Your task to perform on an android device: Search for the best selling vase on Crate & Barrel Image 0: 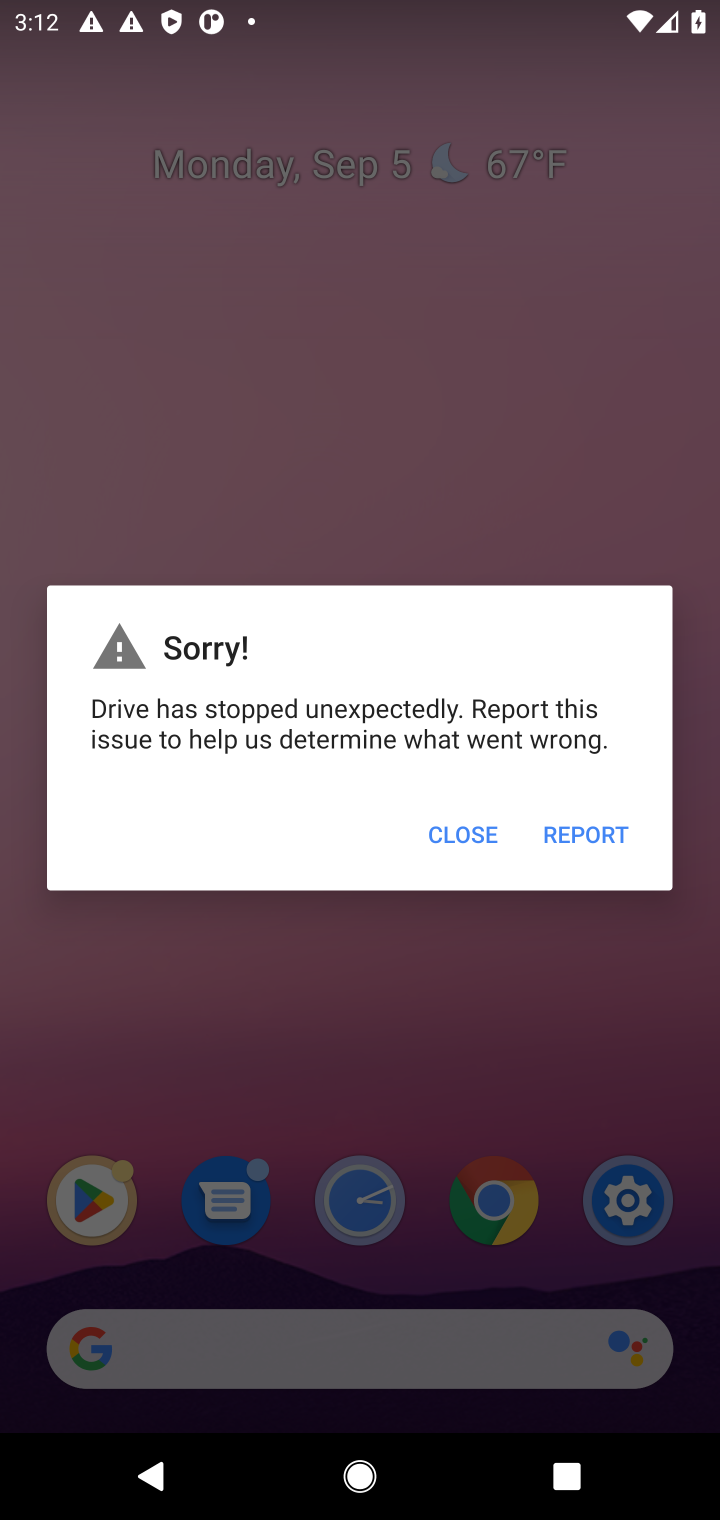
Step 0: click (485, 951)
Your task to perform on an android device: Search for the best selling vase on Crate & Barrel Image 1: 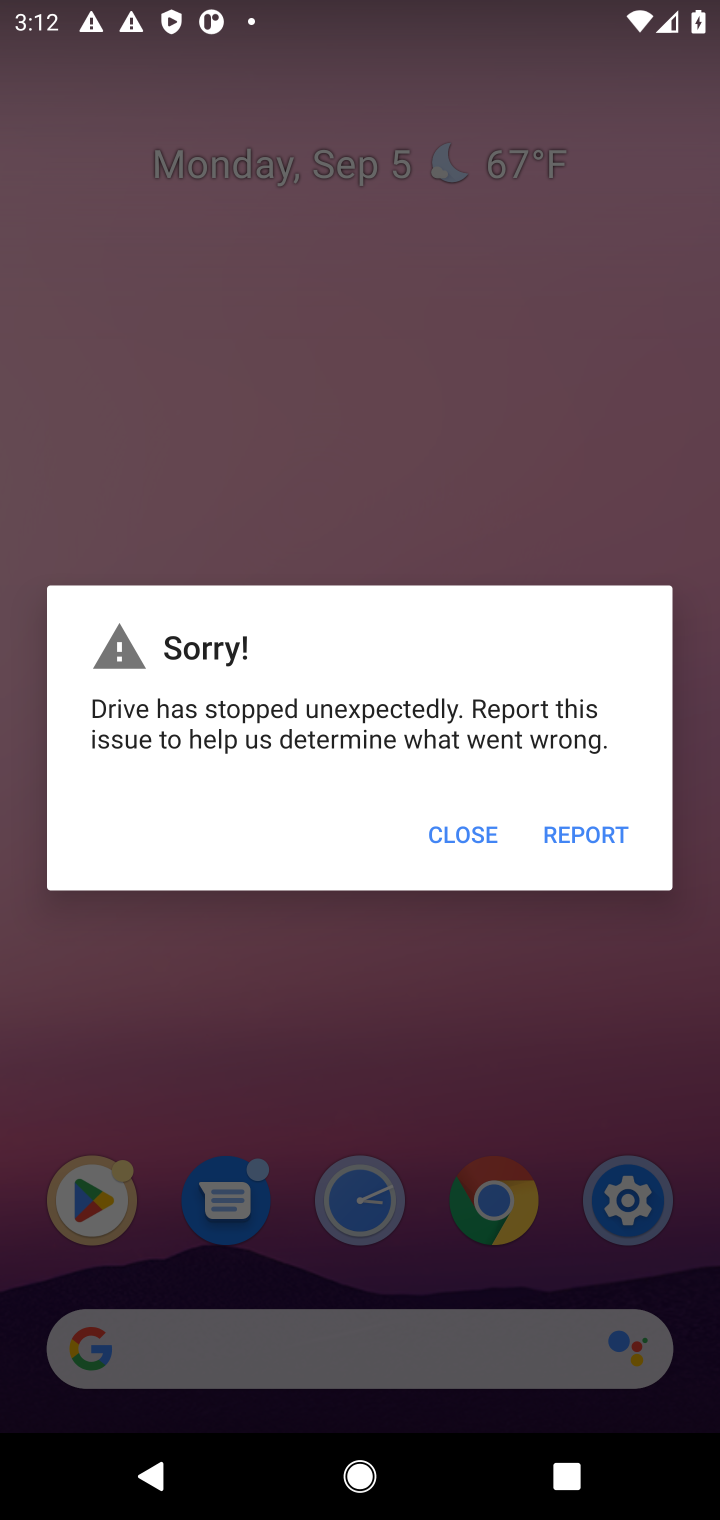
Step 1: press home button
Your task to perform on an android device: Search for the best selling vase on Crate & Barrel Image 2: 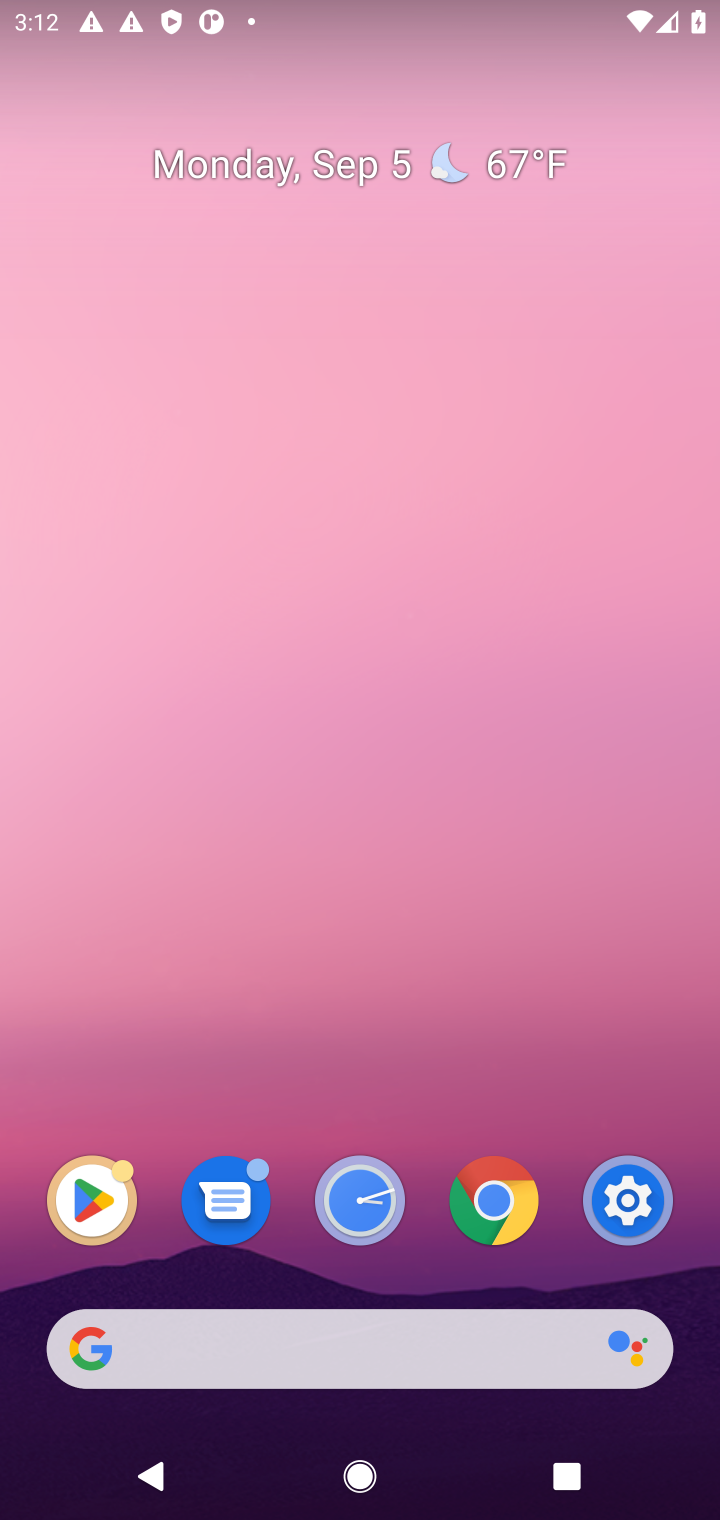
Step 2: click (371, 1341)
Your task to perform on an android device: Search for the best selling vase on Crate & Barrel Image 3: 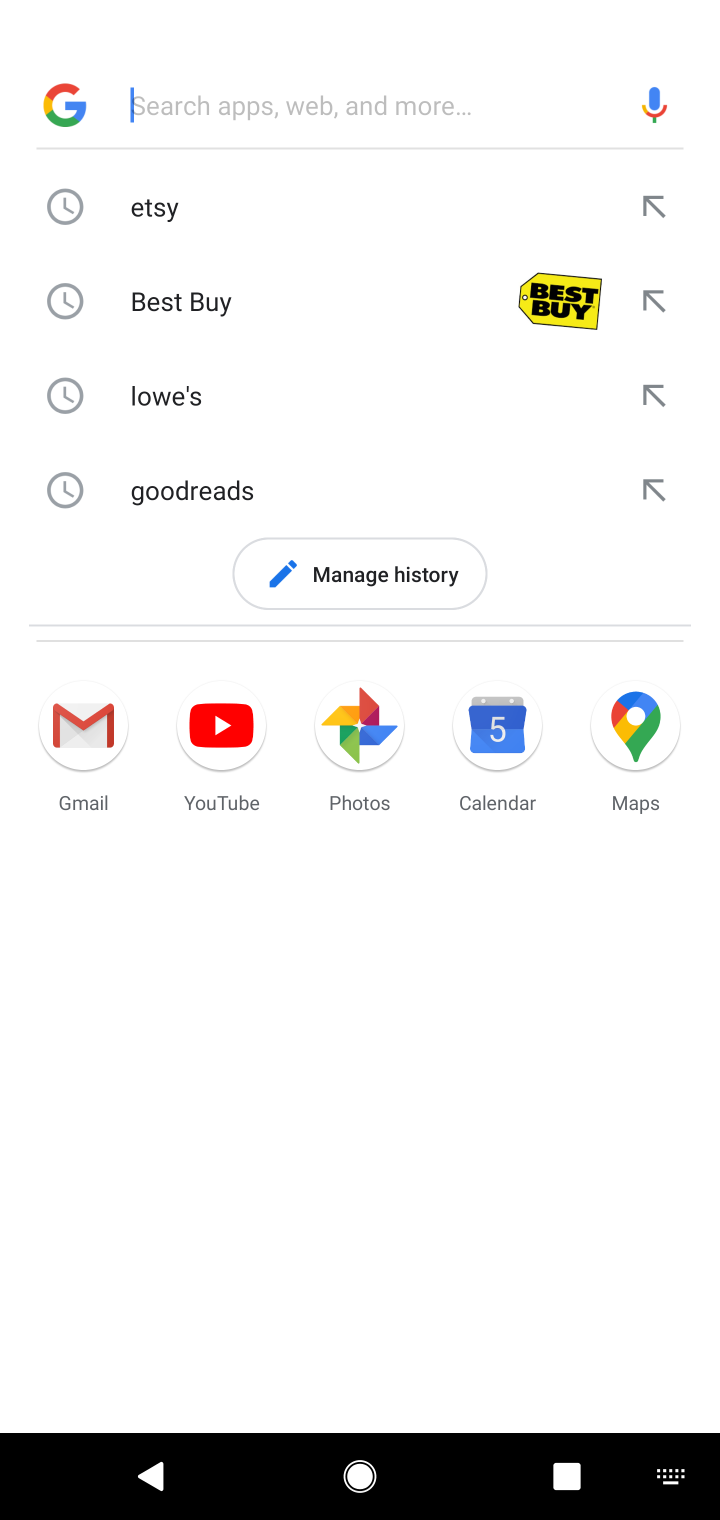
Step 3: type "crate & barrel"
Your task to perform on an android device: Search for the best selling vase on Crate & Barrel Image 4: 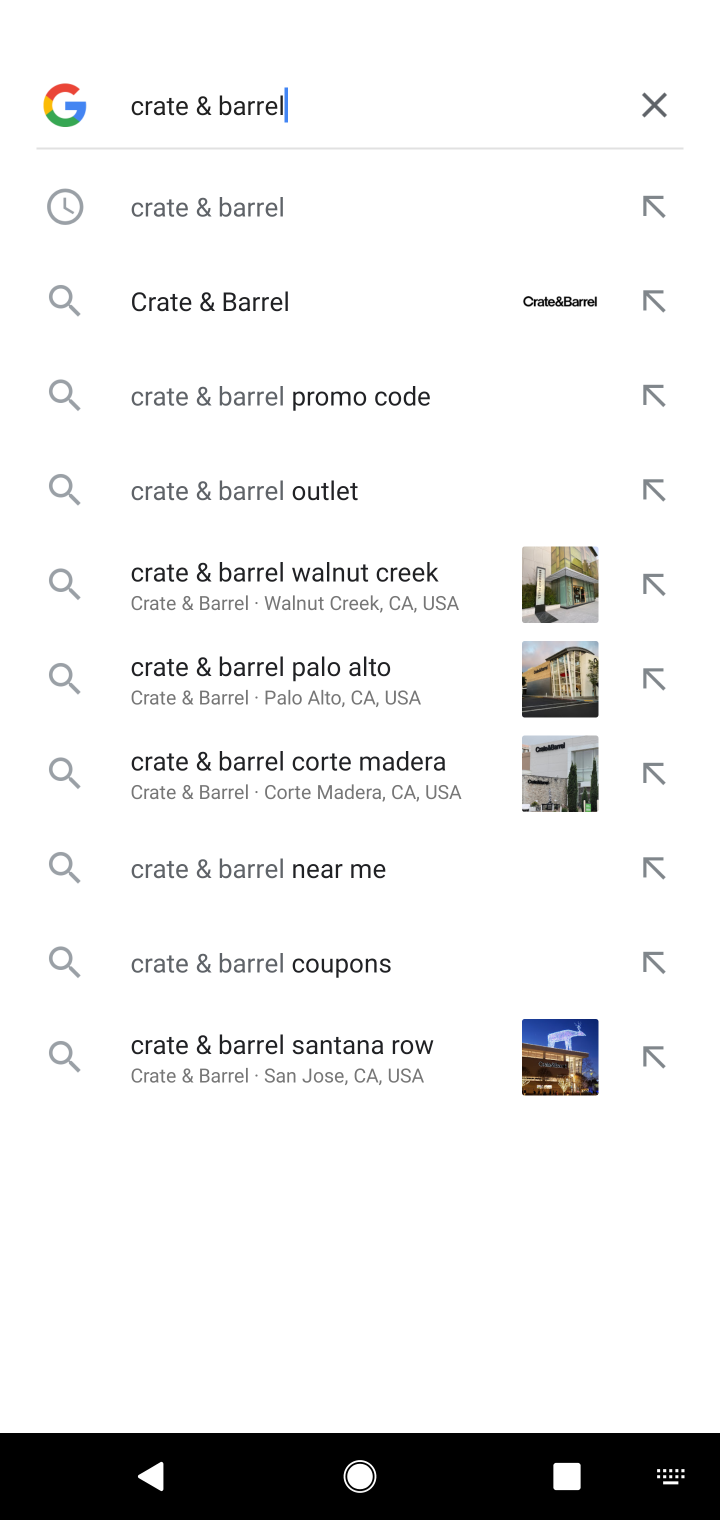
Step 4: click (228, 198)
Your task to perform on an android device: Search for the best selling vase on Crate & Barrel Image 5: 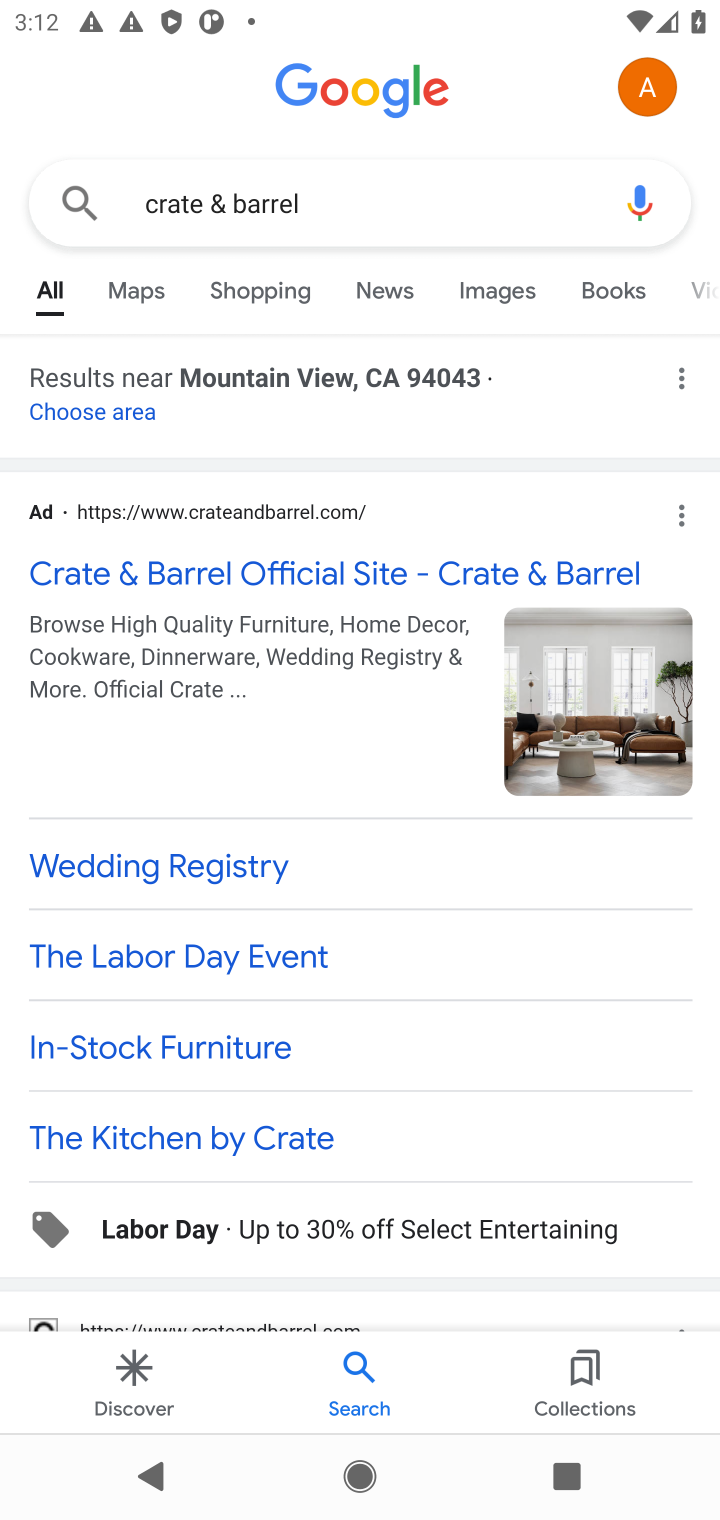
Step 5: click (232, 573)
Your task to perform on an android device: Search for the best selling vase on Crate & Barrel Image 6: 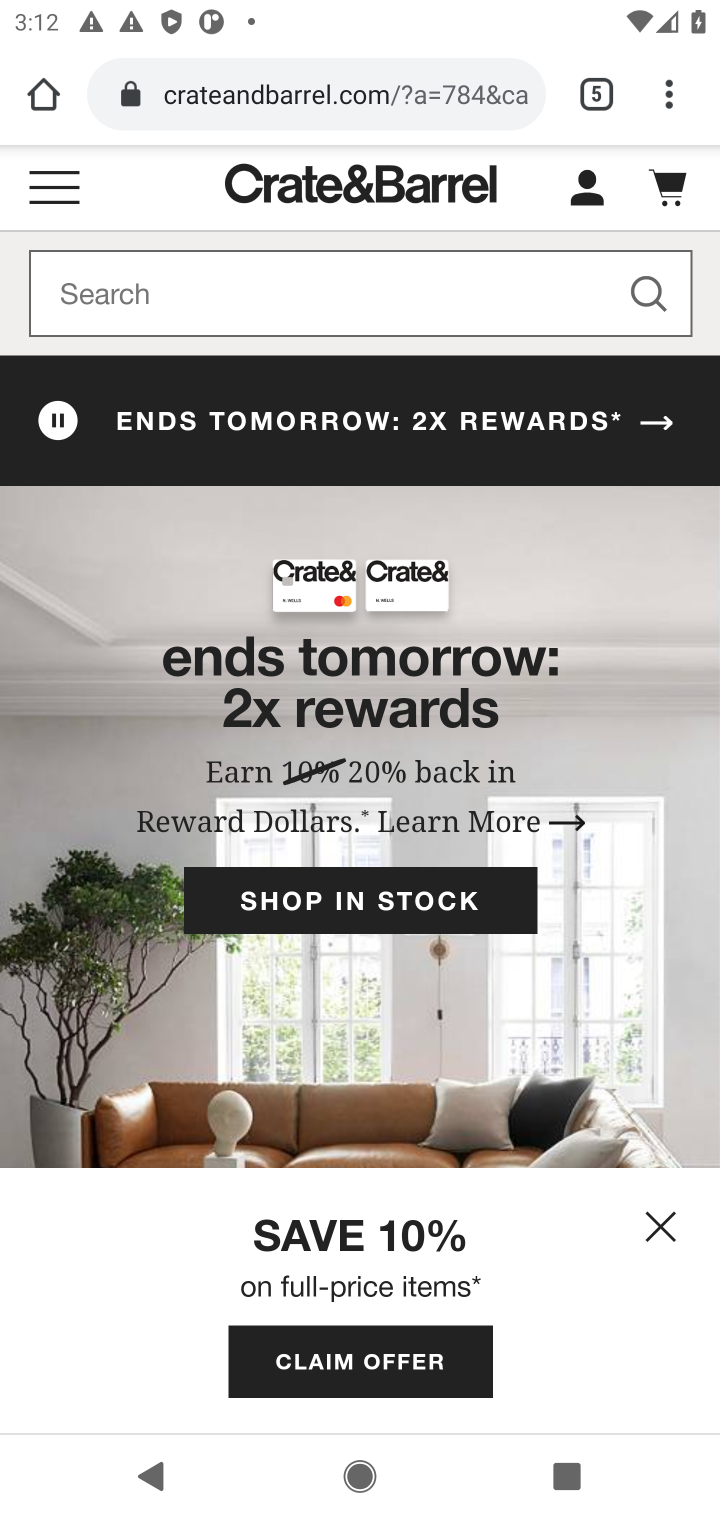
Step 6: click (232, 283)
Your task to perform on an android device: Search for the best selling vase on Crate & Barrel Image 7: 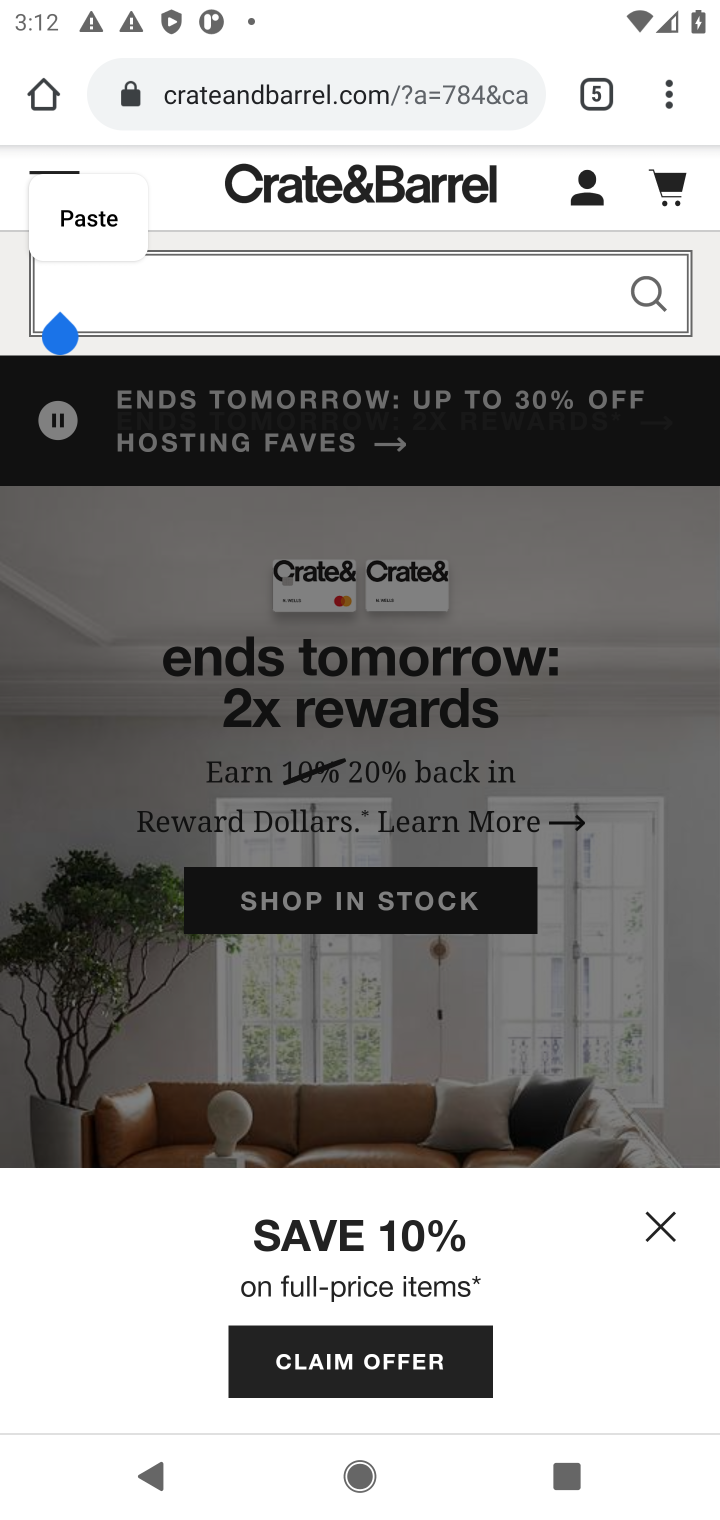
Step 7: type "best selling vase"
Your task to perform on an android device: Search for the best selling vase on Crate & Barrel Image 8: 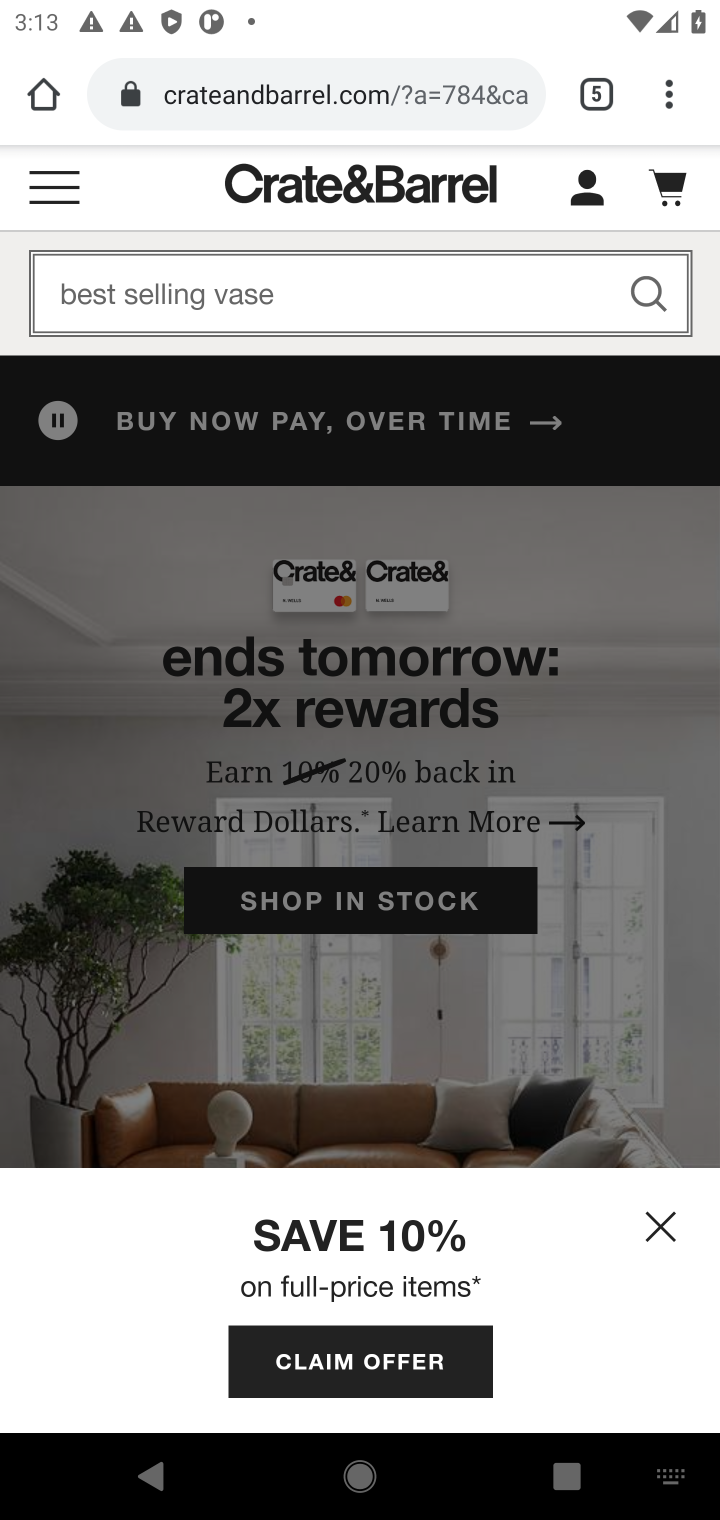
Step 8: click (647, 282)
Your task to perform on an android device: Search for the best selling vase on Crate & Barrel Image 9: 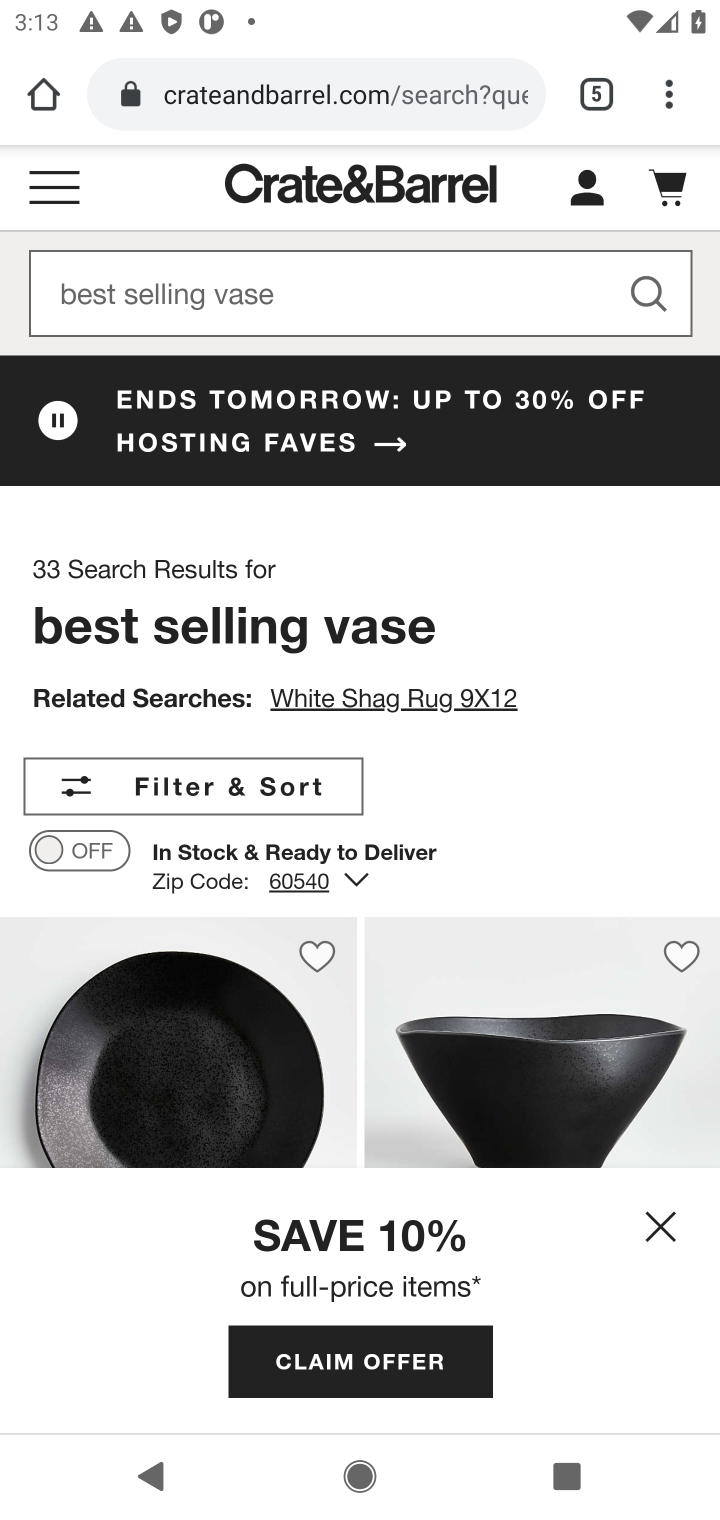
Step 9: task complete